Your task to perform on an android device: see tabs open on other devices in the chrome app Image 0: 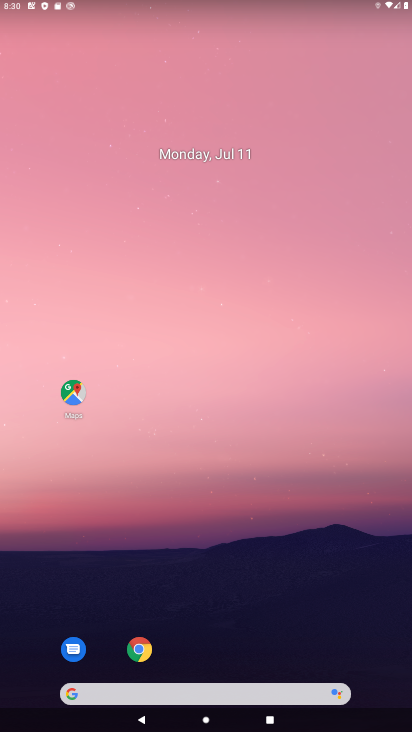
Step 0: drag from (218, 664) to (292, 84)
Your task to perform on an android device: see tabs open on other devices in the chrome app Image 1: 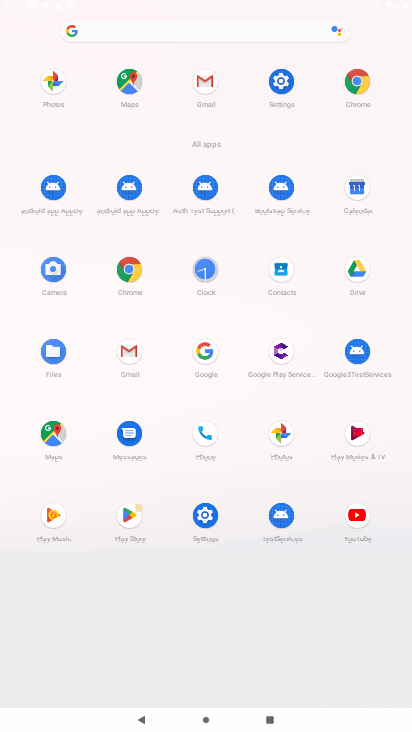
Step 1: click (126, 272)
Your task to perform on an android device: see tabs open on other devices in the chrome app Image 2: 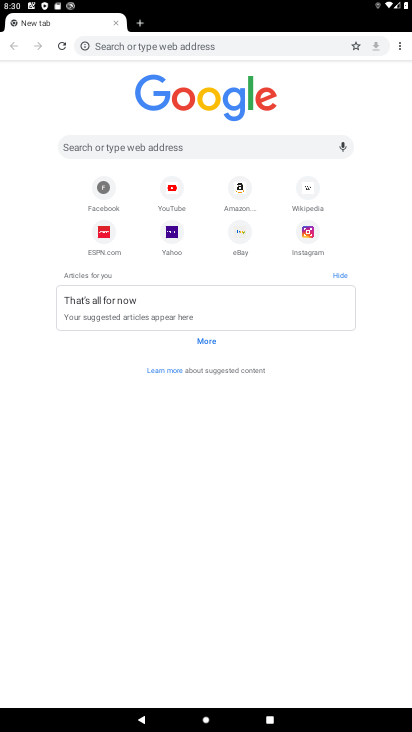
Step 2: task complete